Your task to perform on an android device: Add "bose soundlink" to the cart on target, then select checkout. Image 0: 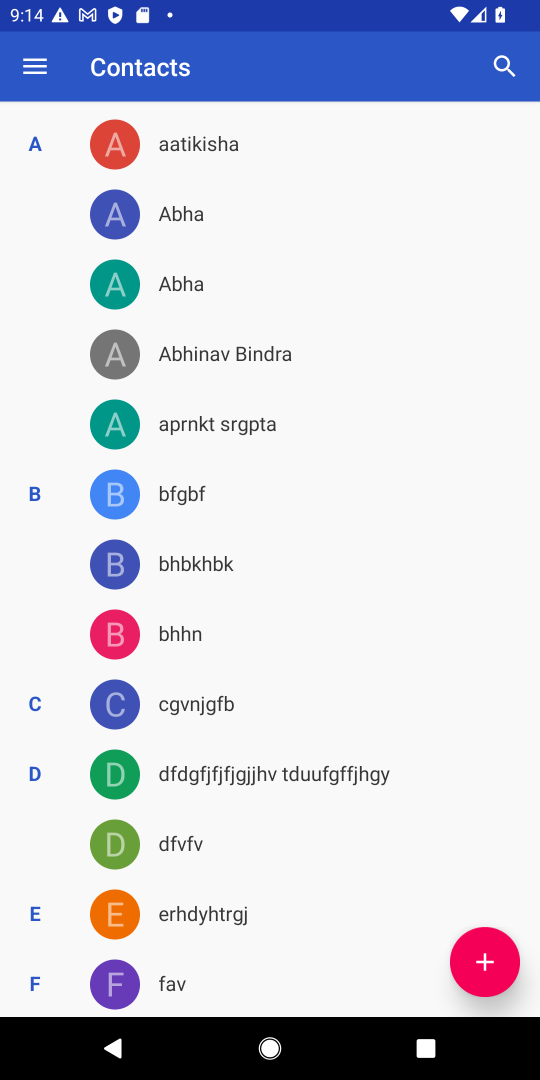
Step 0: press home button
Your task to perform on an android device: Add "bose soundlink" to the cart on target, then select checkout. Image 1: 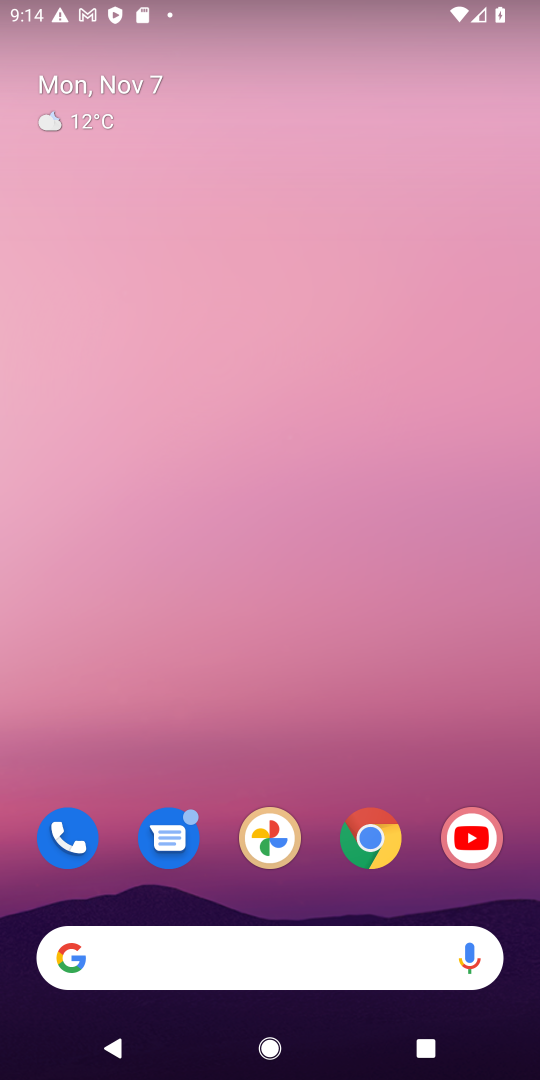
Step 1: click (377, 828)
Your task to perform on an android device: Add "bose soundlink" to the cart on target, then select checkout. Image 2: 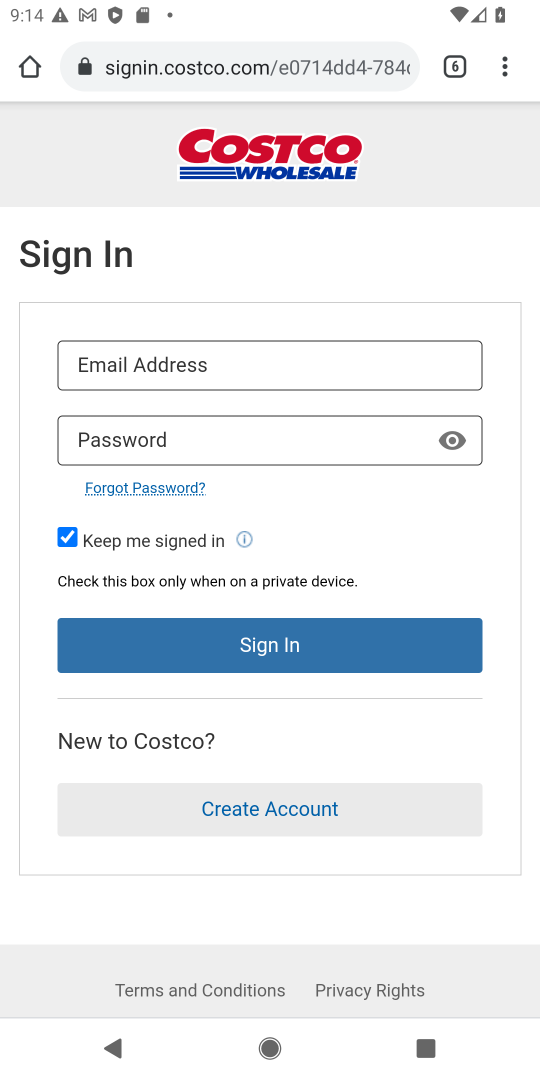
Step 2: click (453, 65)
Your task to perform on an android device: Add "bose soundlink" to the cart on target, then select checkout. Image 3: 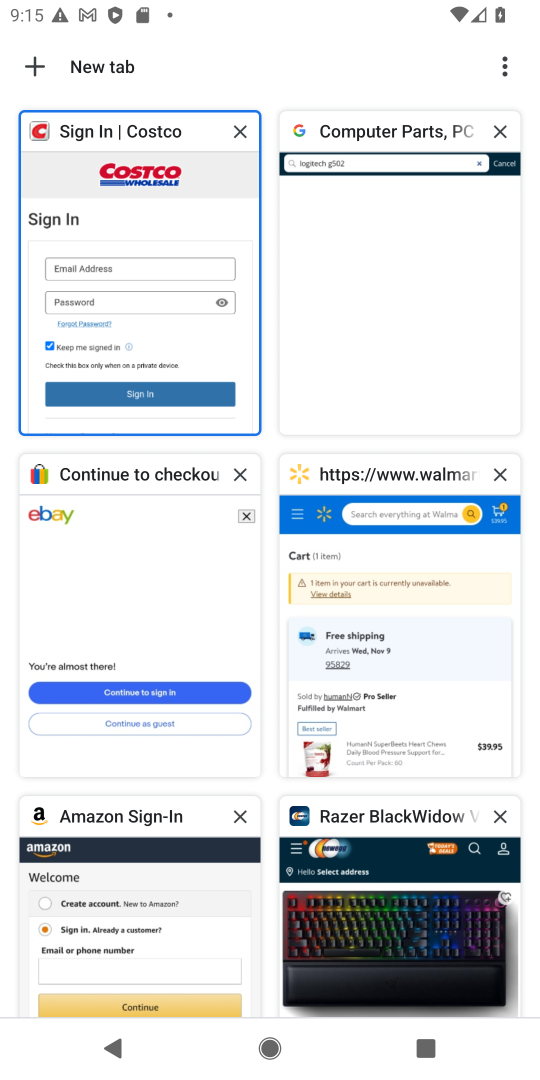
Step 3: click (33, 64)
Your task to perform on an android device: Add "bose soundlink" to the cart on target, then select checkout. Image 4: 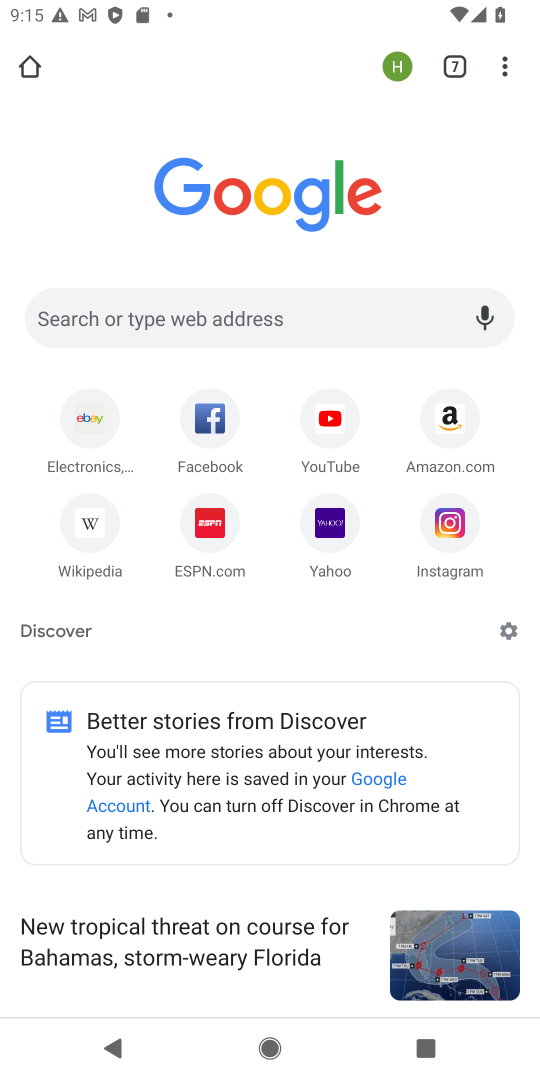
Step 4: click (455, 71)
Your task to perform on an android device: Add "bose soundlink" to the cart on target, then select checkout. Image 5: 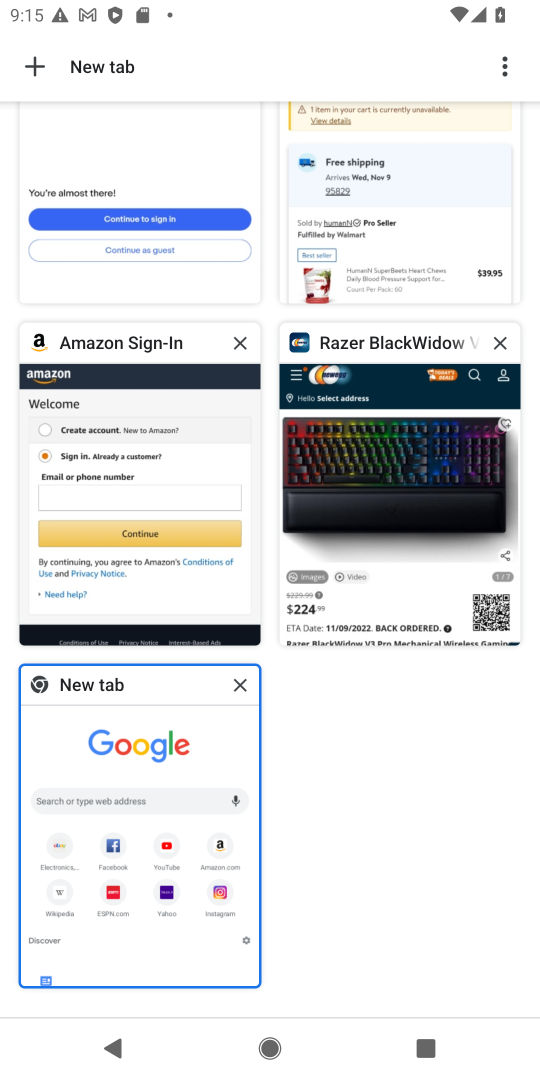
Step 5: drag from (321, 183) to (327, 1015)
Your task to perform on an android device: Add "bose soundlink" to the cart on target, then select checkout. Image 6: 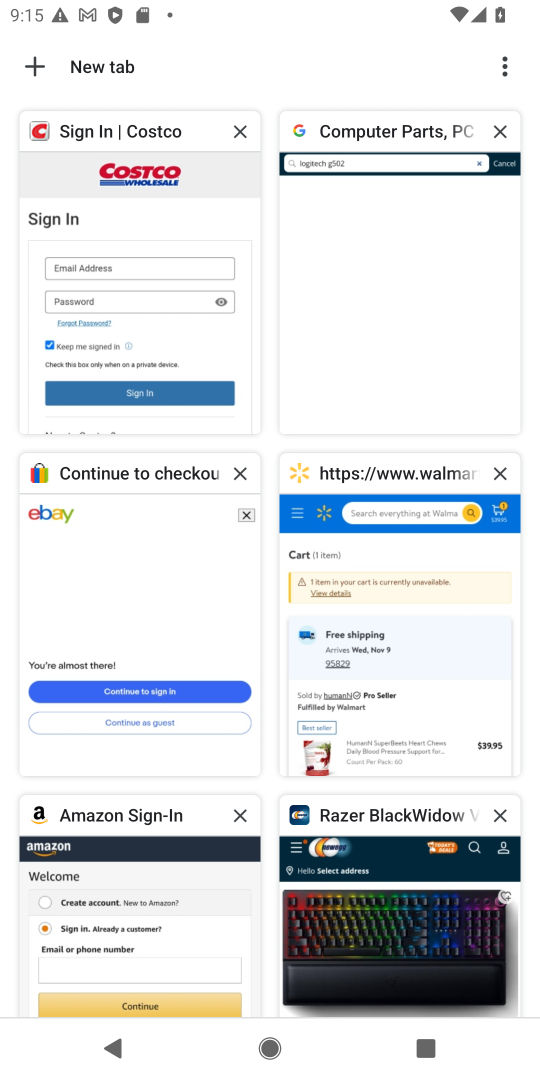
Step 6: click (498, 130)
Your task to perform on an android device: Add "bose soundlink" to the cart on target, then select checkout. Image 7: 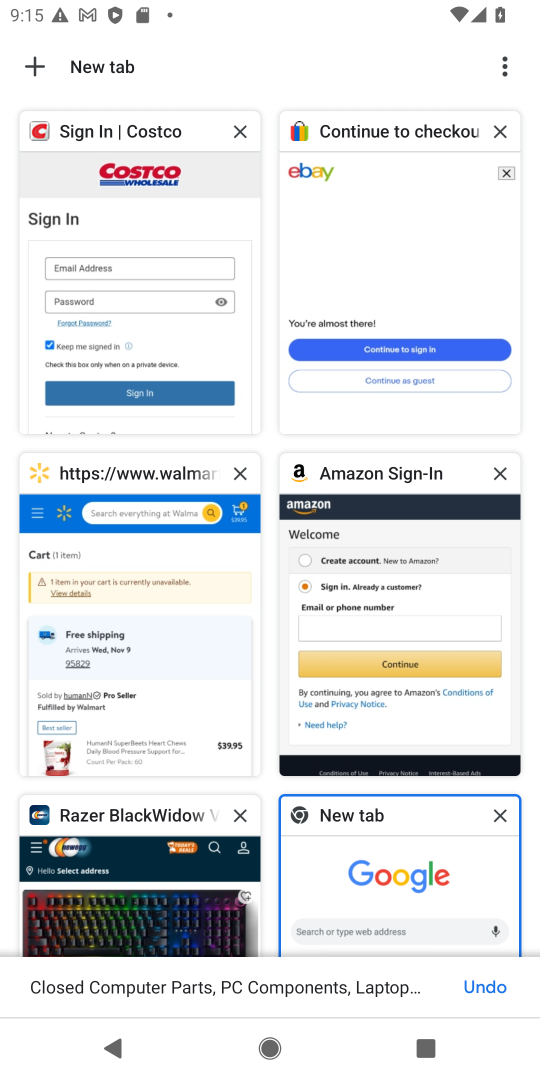
Step 7: click (38, 63)
Your task to perform on an android device: Add "bose soundlink" to the cart on target, then select checkout. Image 8: 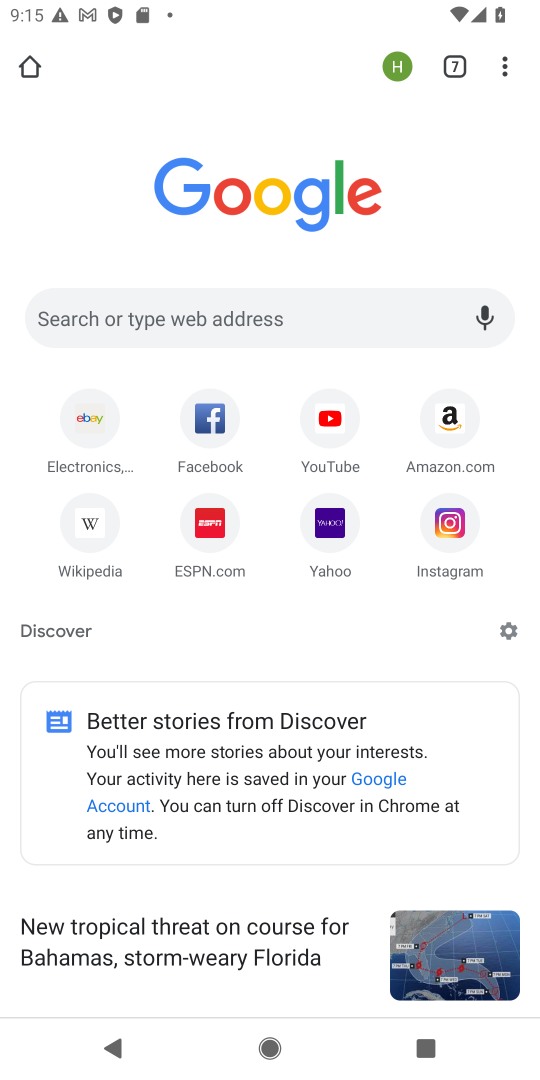
Step 8: click (175, 316)
Your task to perform on an android device: Add "bose soundlink" to the cart on target, then select checkout. Image 9: 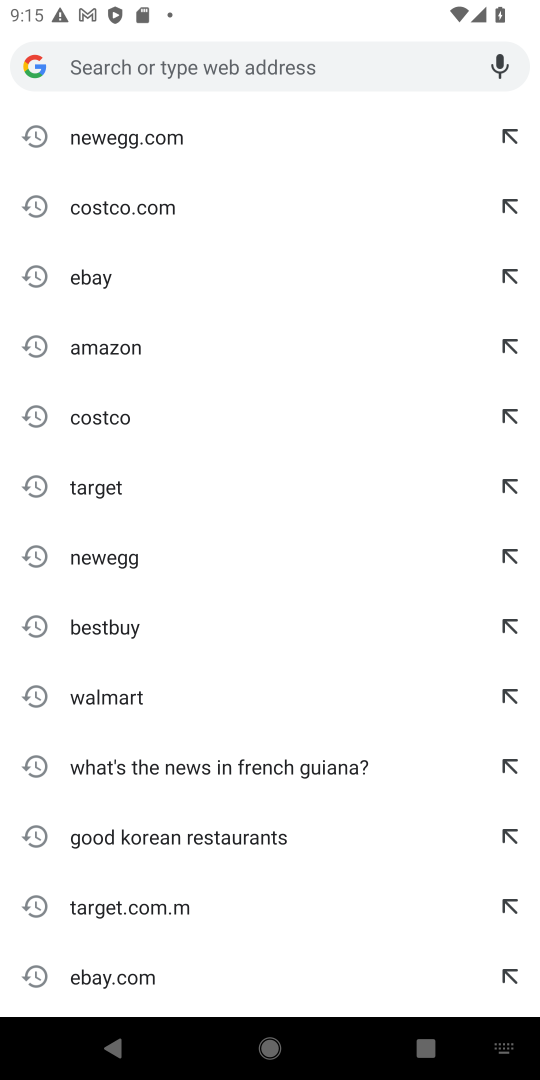
Step 9: click (103, 485)
Your task to perform on an android device: Add "bose soundlink" to the cart on target, then select checkout. Image 10: 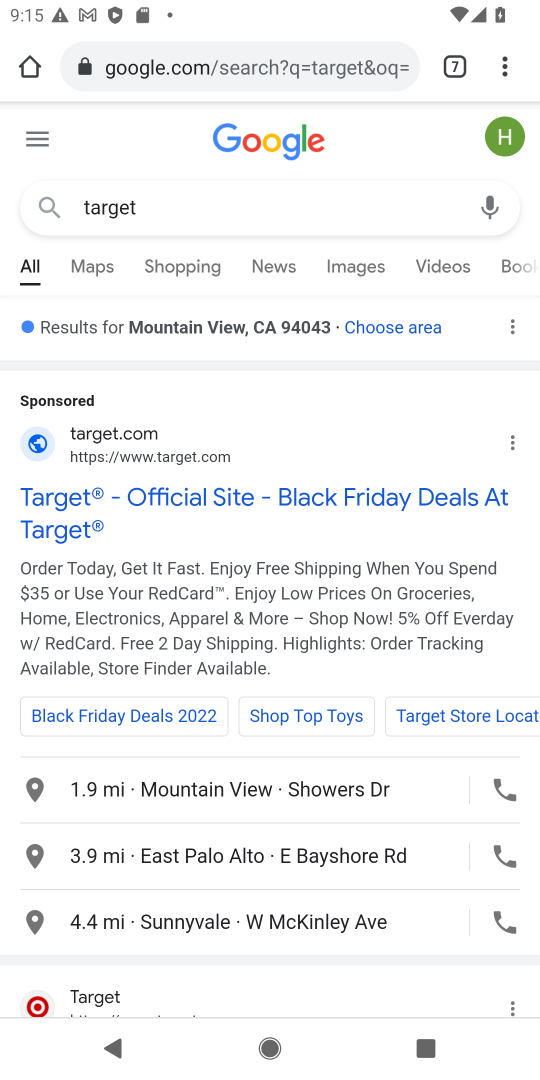
Step 10: drag from (246, 789) to (346, 338)
Your task to perform on an android device: Add "bose soundlink" to the cart on target, then select checkout. Image 11: 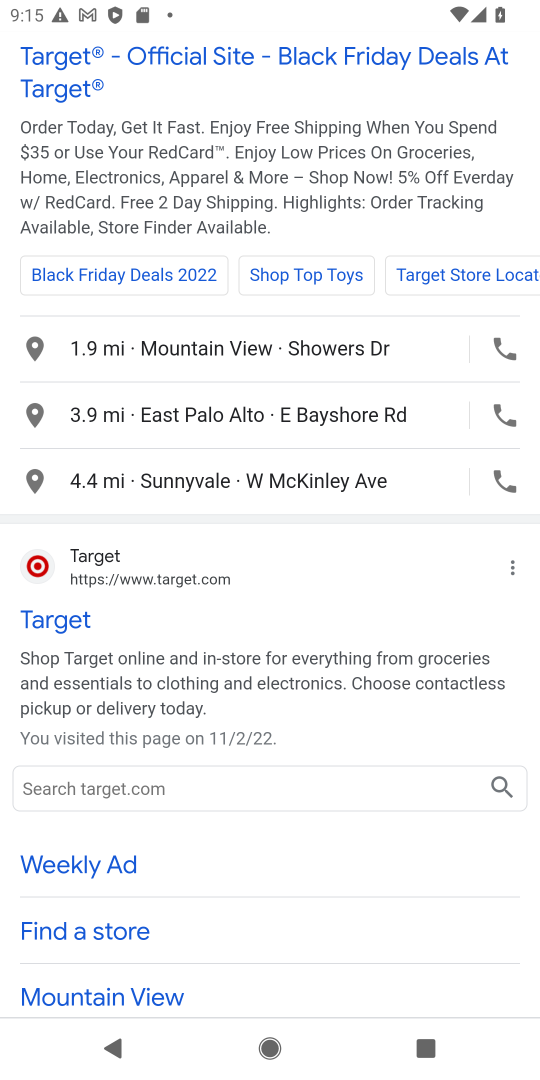
Step 11: click (77, 794)
Your task to perform on an android device: Add "bose soundlink" to the cart on target, then select checkout. Image 12: 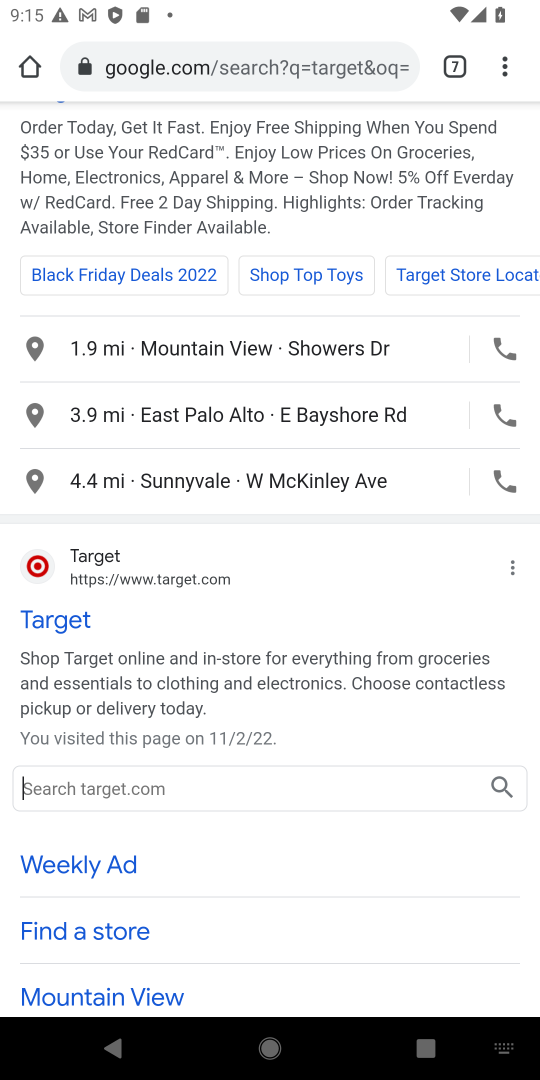
Step 12: type "bose soundlink"
Your task to perform on an android device: Add "bose soundlink" to the cart on target, then select checkout. Image 13: 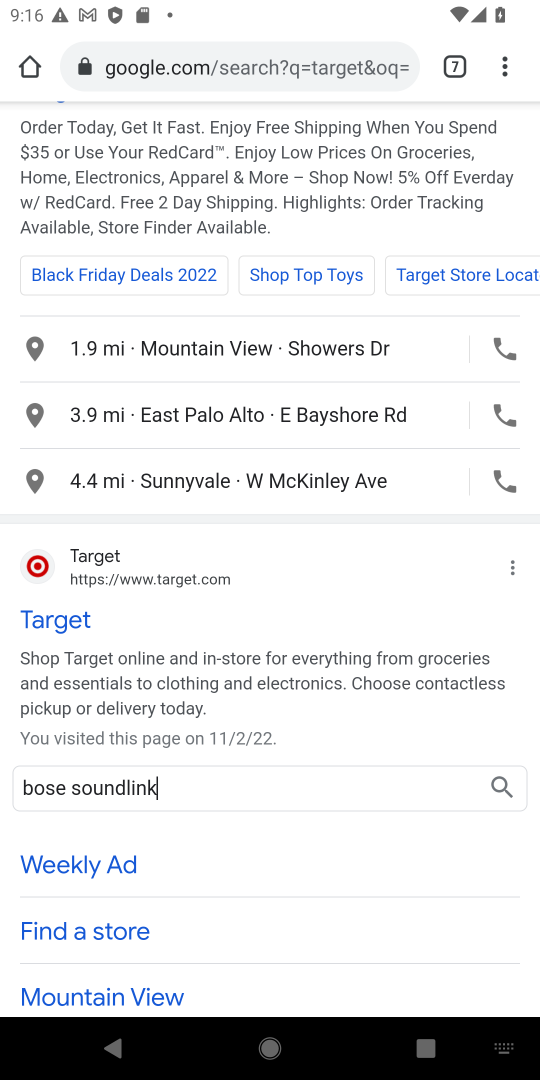
Step 13: click (502, 776)
Your task to perform on an android device: Add "bose soundlink" to the cart on target, then select checkout. Image 14: 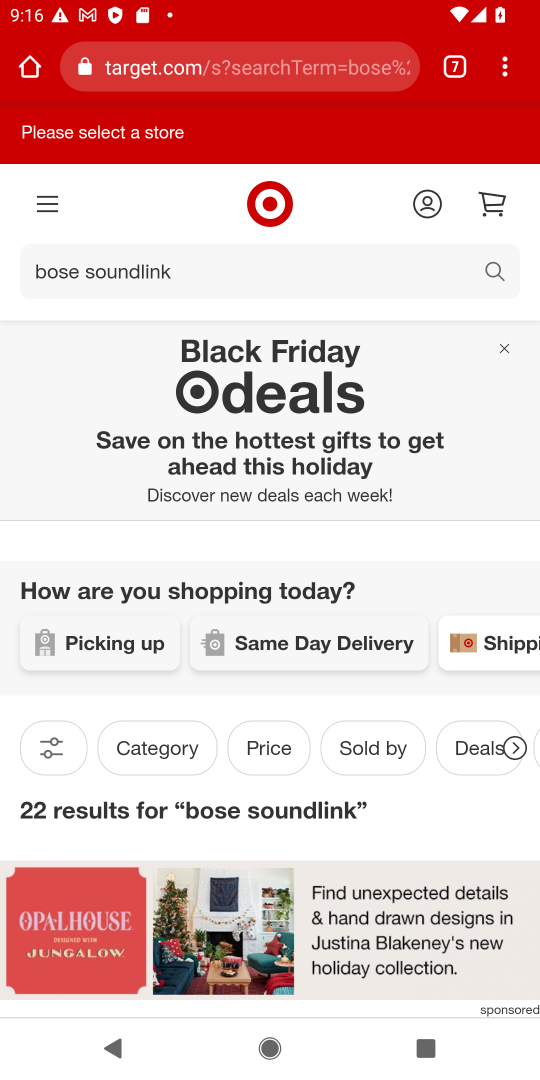
Step 14: drag from (376, 827) to (473, 36)
Your task to perform on an android device: Add "bose soundlink" to the cart on target, then select checkout. Image 15: 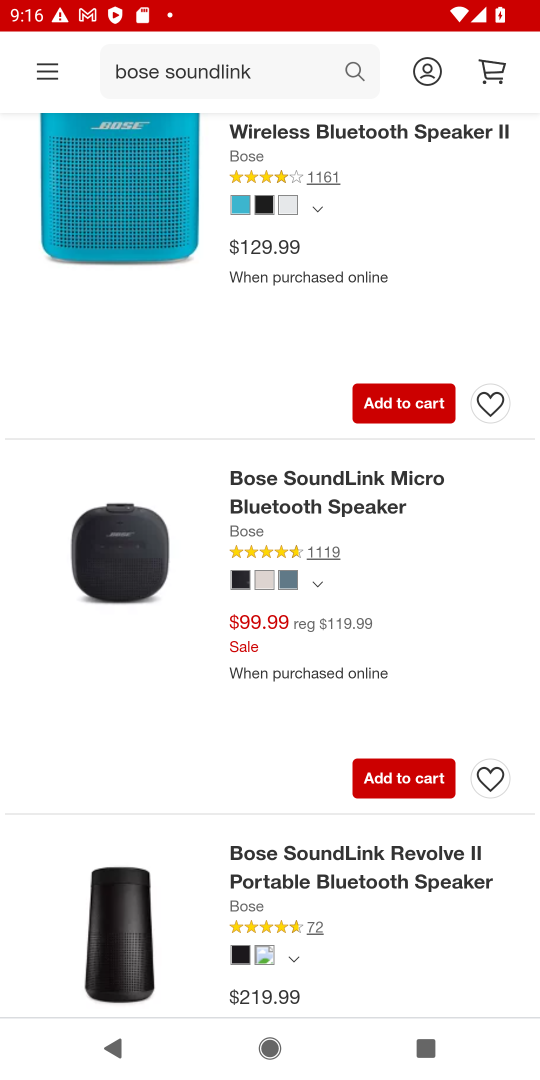
Step 15: click (409, 776)
Your task to perform on an android device: Add "bose soundlink" to the cart on target, then select checkout. Image 16: 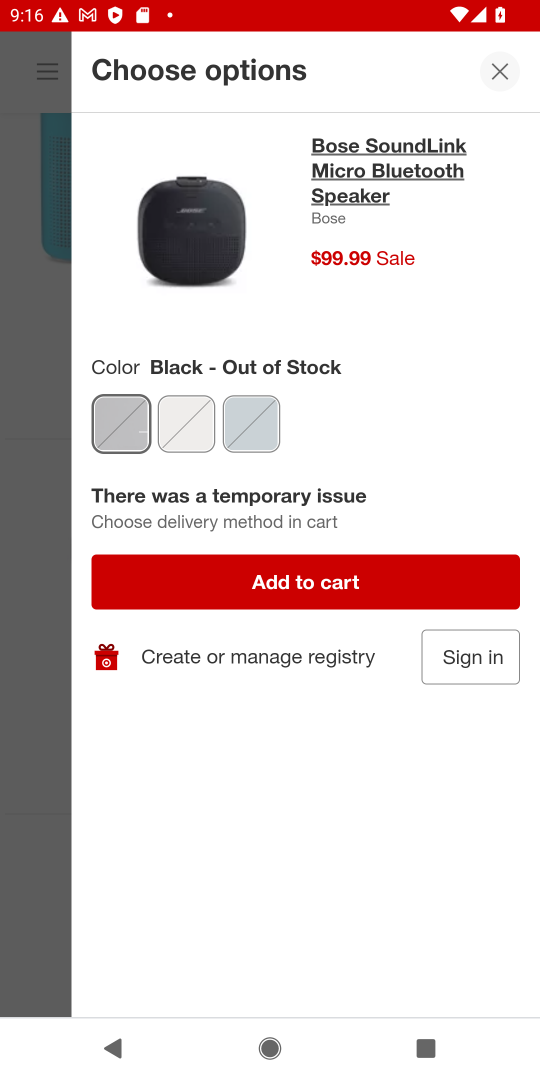
Step 16: click (324, 582)
Your task to perform on an android device: Add "bose soundlink" to the cart on target, then select checkout. Image 17: 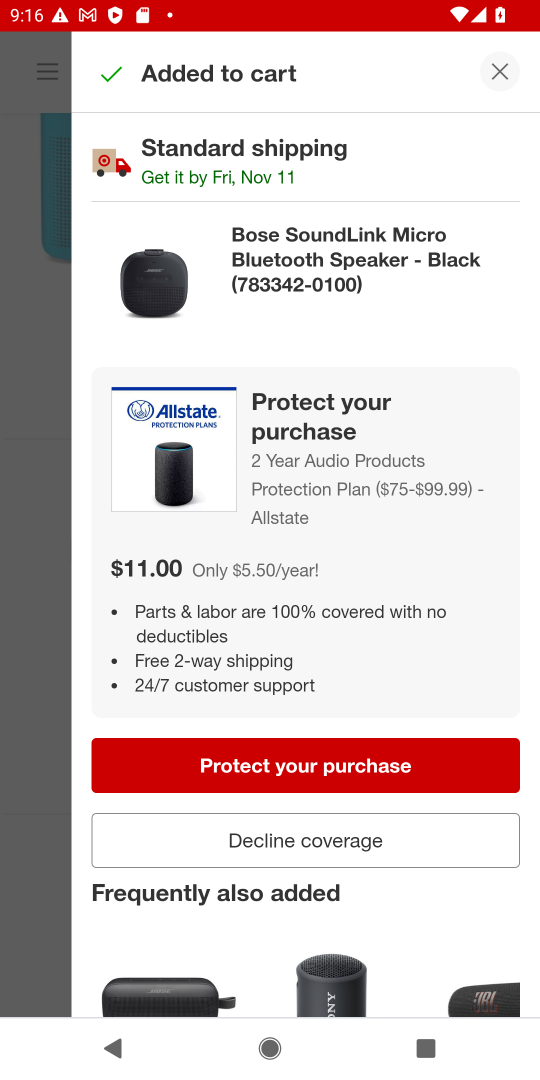
Step 17: click (242, 859)
Your task to perform on an android device: Add "bose soundlink" to the cart on target, then select checkout. Image 18: 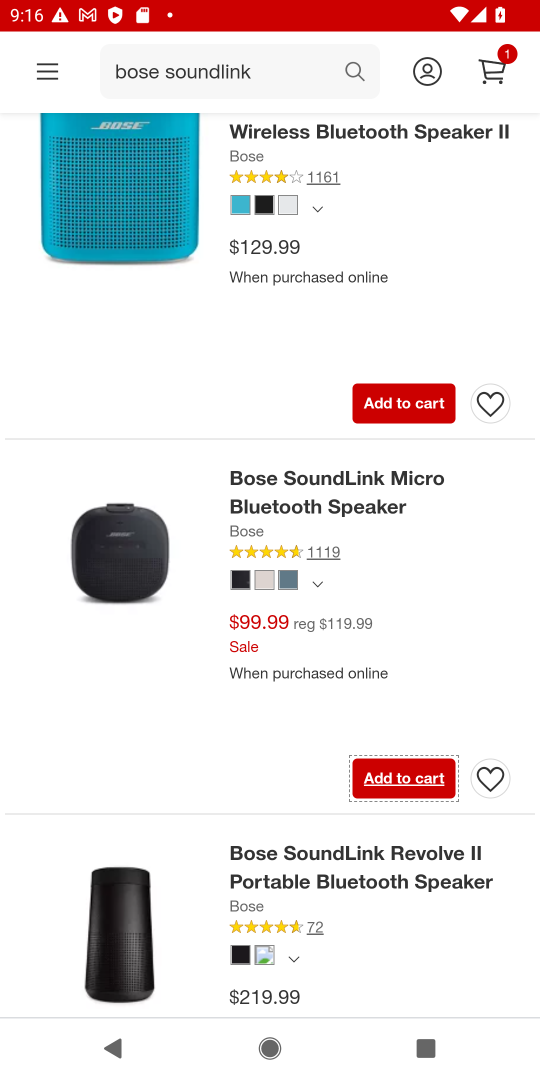
Step 18: task complete